Your task to perform on an android device: Open settings on Google Maps Image 0: 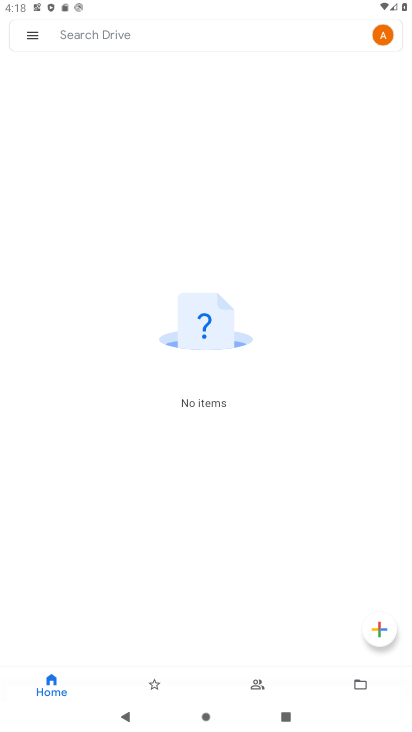
Step 0: press home button
Your task to perform on an android device: Open settings on Google Maps Image 1: 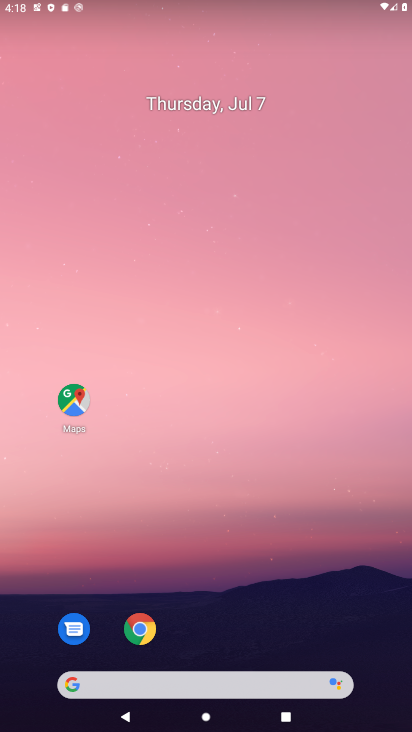
Step 1: drag from (240, 623) to (233, 241)
Your task to perform on an android device: Open settings on Google Maps Image 2: 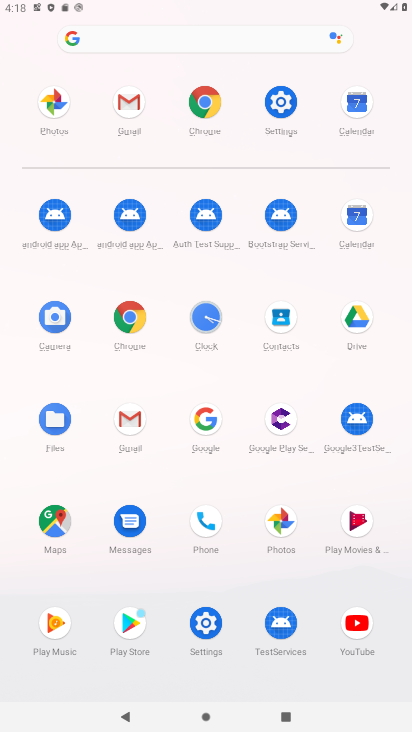
Step 2: click (63, 507)
Your task to perform on an android device: Open settings on Google Maps Image 3: 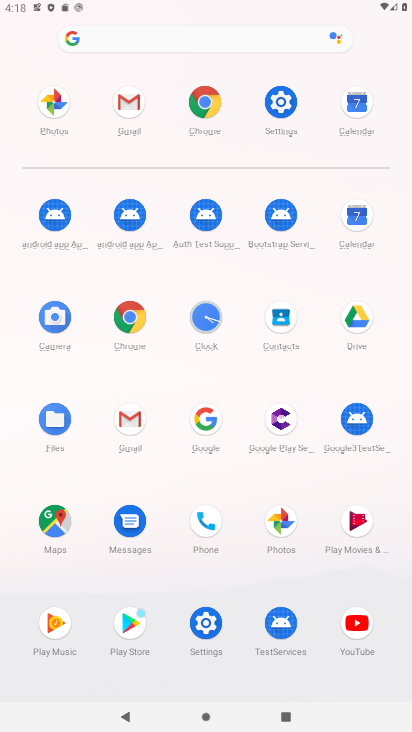
Step 3: click (49, 528)
Your task to perform on an android device: Open settings on Google Maps Image 4: 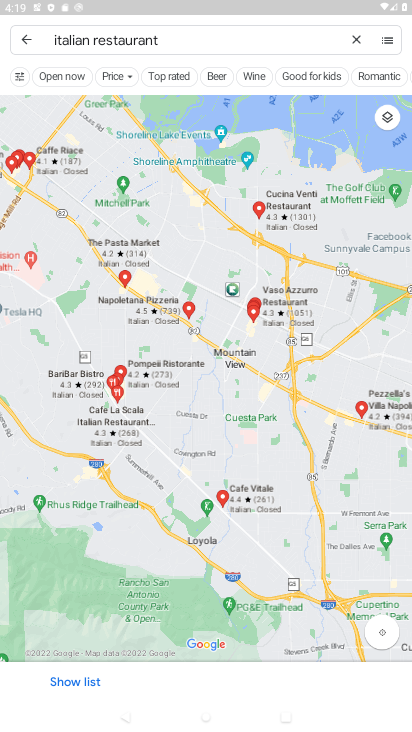
Step 4: click (385, 36)
Your task to perform on an android device: Open settings on Google Maps Image 5: 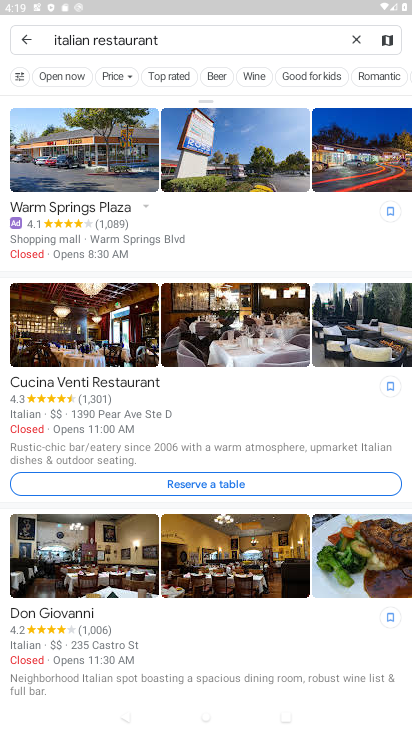
Step 5: click (355, 34)
Your task to perform on an android device: Open settings on Google Maps Image 6: 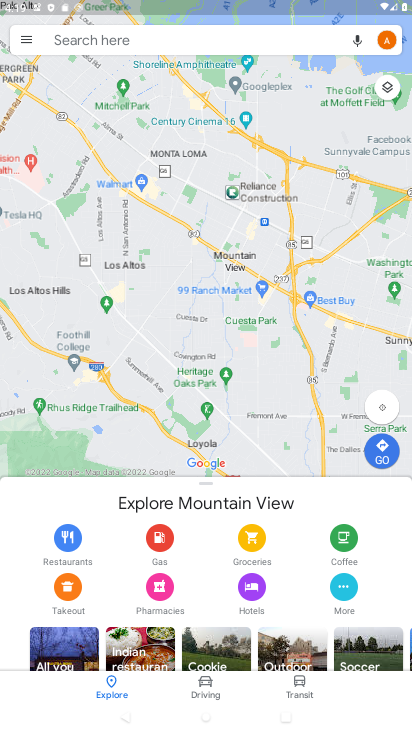
Step 6: click (24, 35)
Your task to perform on an android device: Open settings on Google Maps Image 7: 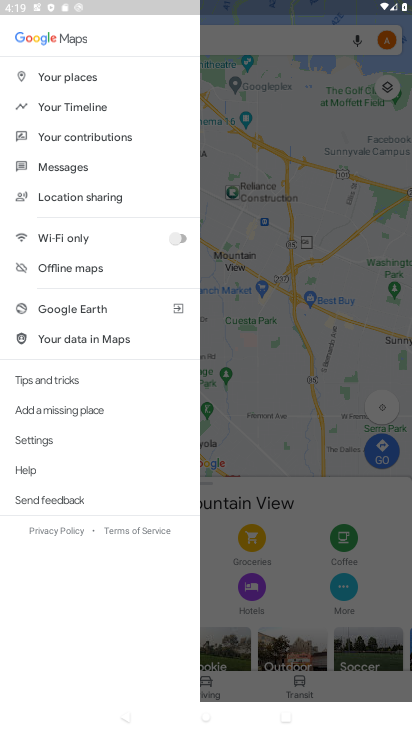
Step 7: click (37, 431)
Your task to perform on an android device: Open settings on Google Maps Image 8: 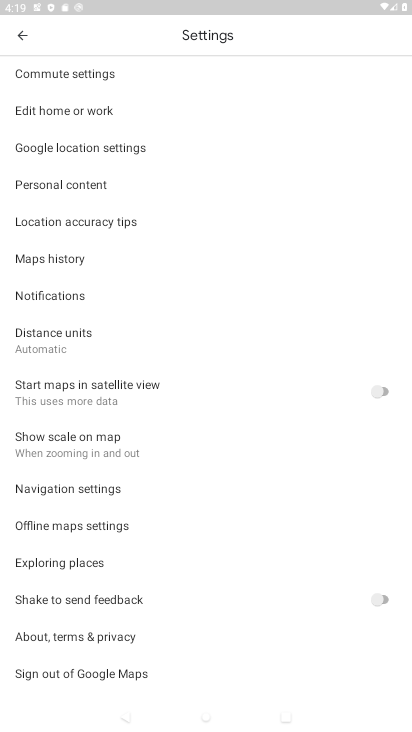
Step 8: task complete